Your task to perform on an android device: snooze an email in the gmail app Image 0: 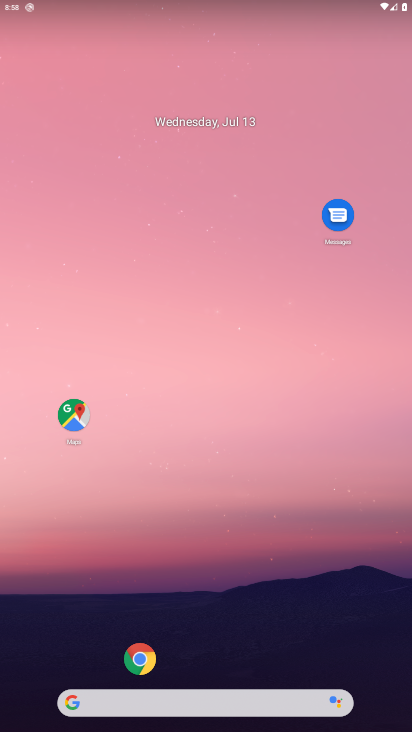
Step 0: drag from (55, 637) to (139, 213)
Your task to perform on an android device: snooze an email in the gmail app Image 1: 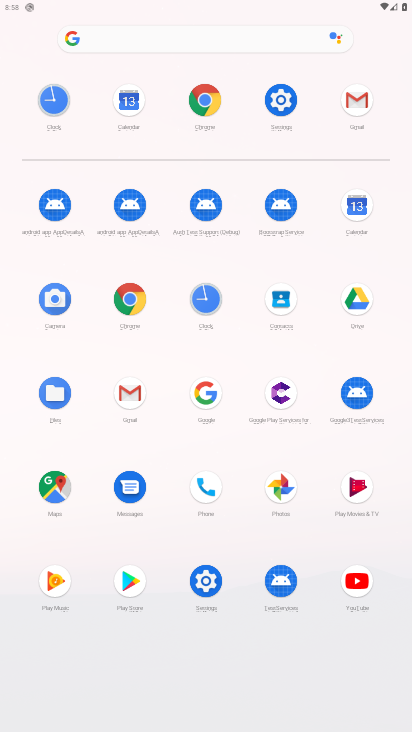
Step 1: click (124, 408)
Your task to perform on an android device: snooze an email in the gmail app Image 2: 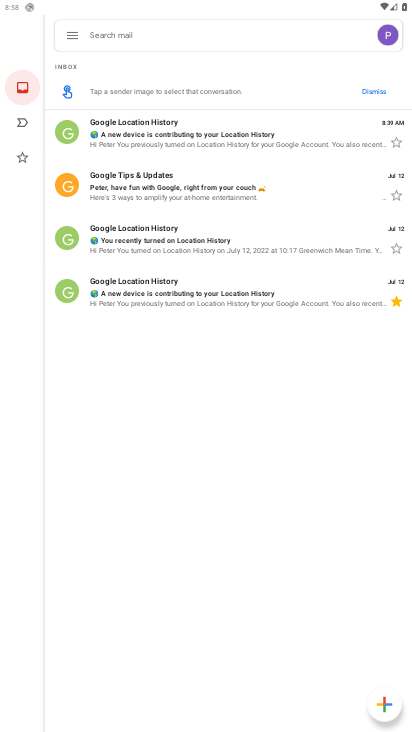
Step 2: click (76, 25)
Your task to perform on an android device: snooze an email in the gmail app Image 3: 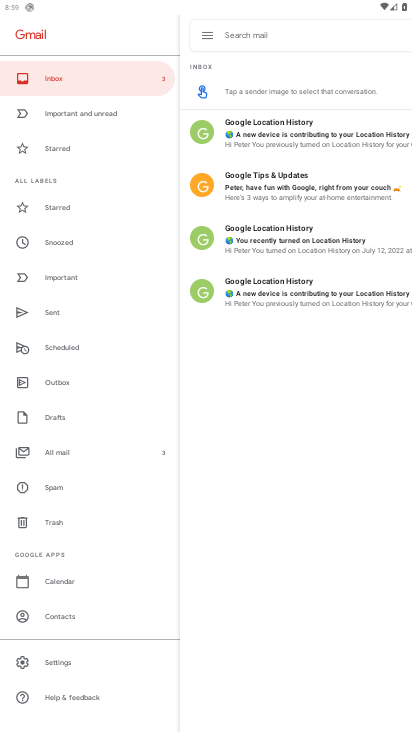
Step 3: click (54, 244)
Your task to perform on an android device: snooze an email in the gmail app Image 4: 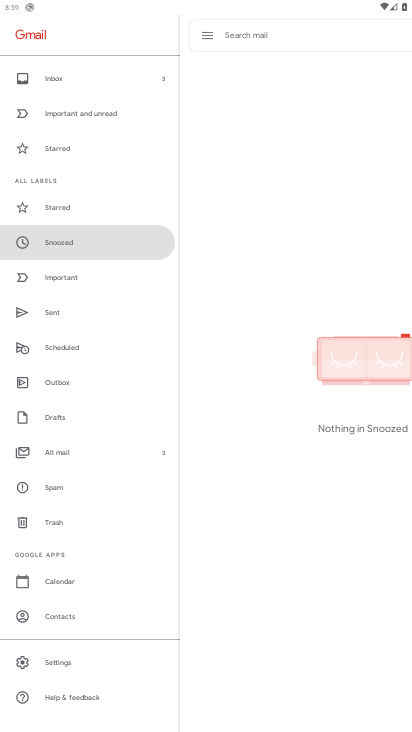
Step 4: task complete